Your task to perform on an android device: turn smart compose on in the gmail app Image 0: 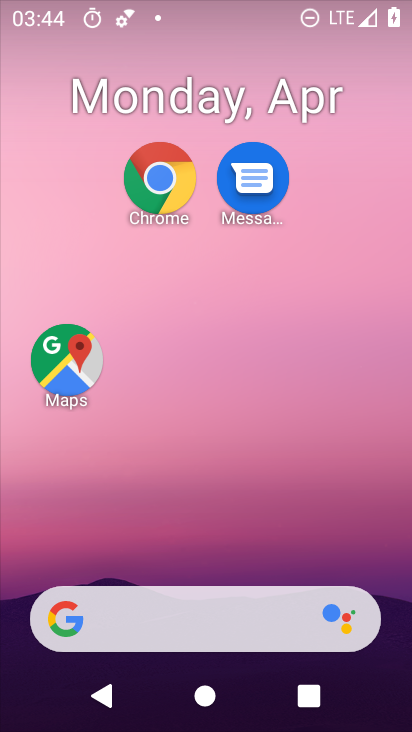
Step 0: drag from (299, 570) to (346, 46)
Your task to perform on an android device: turn smart compose on in the gmail app Image 1: 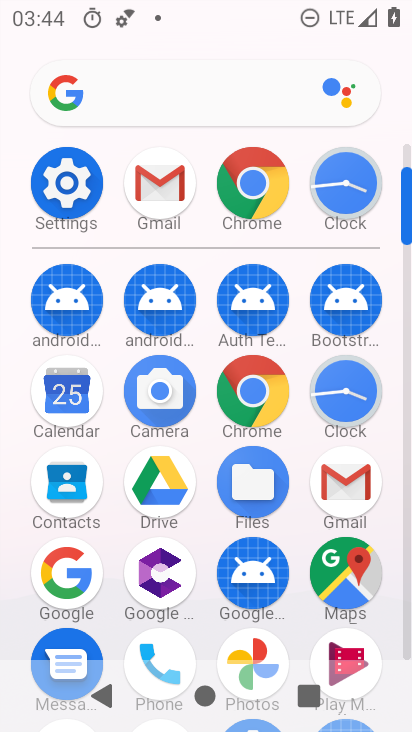
Step 1: click (343, 476)
Your task to perform on an android device: turn smart compose on in the gmail app Image 2: 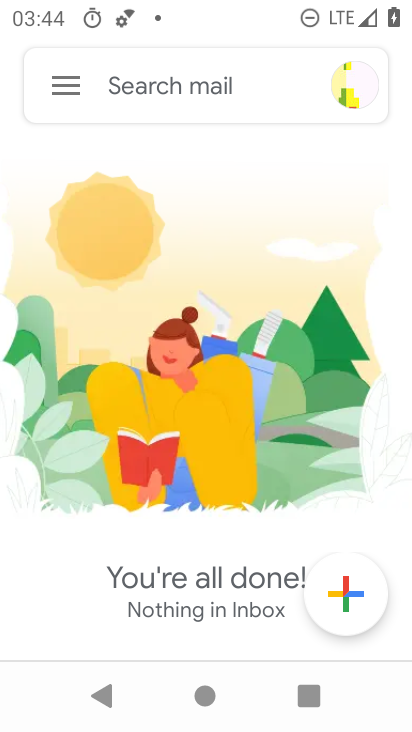
Step 2: click (55, 79)
Your task to perform on an android device: turn smart compose on in the gmail app Image 3: 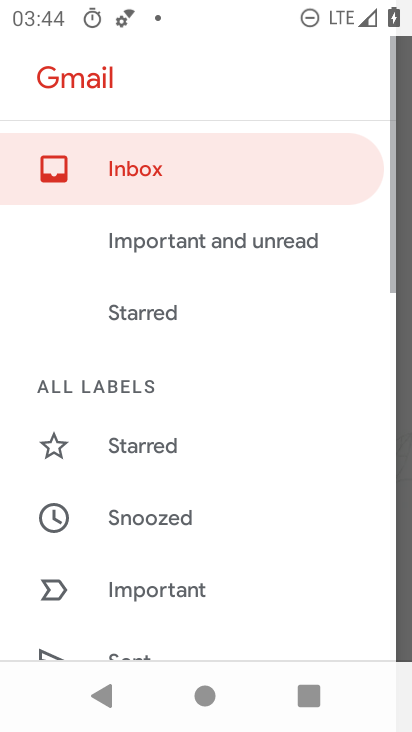
Step 3: drag from (279, 604) to (338, 163)
Your task to perform on an android device: turn smart compose on in the gmail app Image 4: 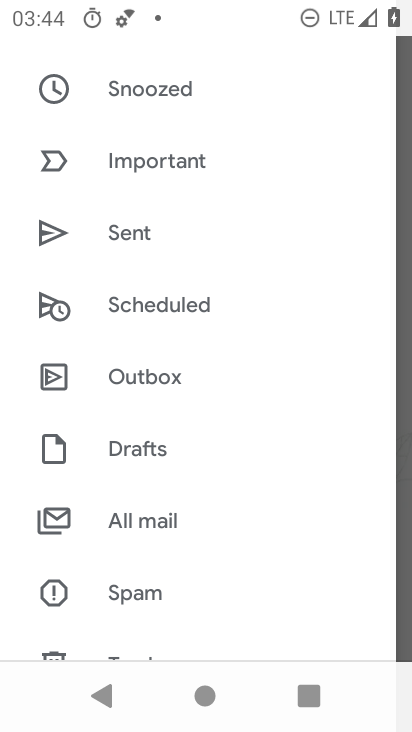
Step 4: drag from (252, 661) to (375, 145)
Your task to perform on an android device: turn smart compose on in the gmail app Image 5: 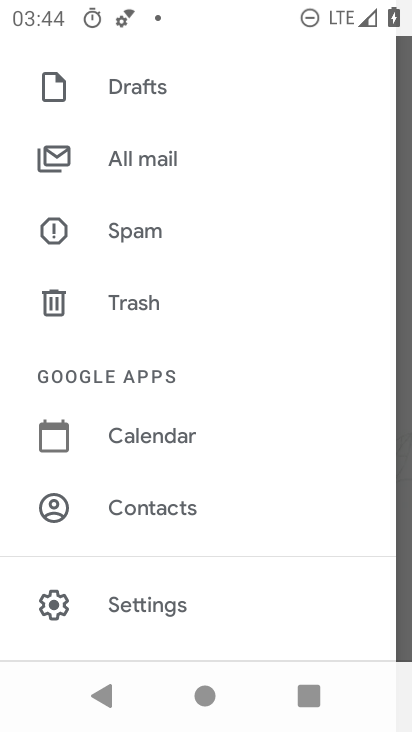
Step 5: click (135, 612)
Your task to perform on an android device: turn smart compose on in the gmail app Image 6: 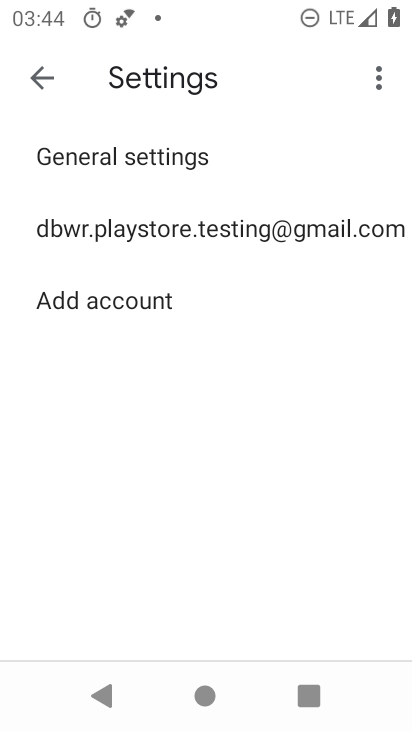
Step 6: click (225, 226)
Your task to perform on an android device: turn smart compose on in the gmail app Image 7: 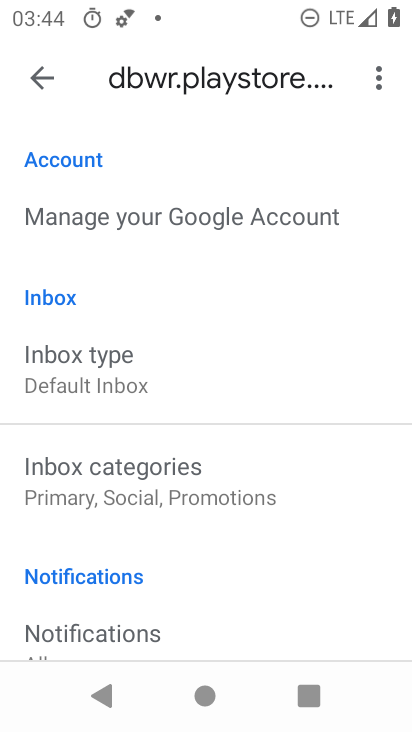
Step 7: drag from (247, 615) to (317, 181)
Your task to perform on an android device: turn smart compose on in the gmail app Image 8: 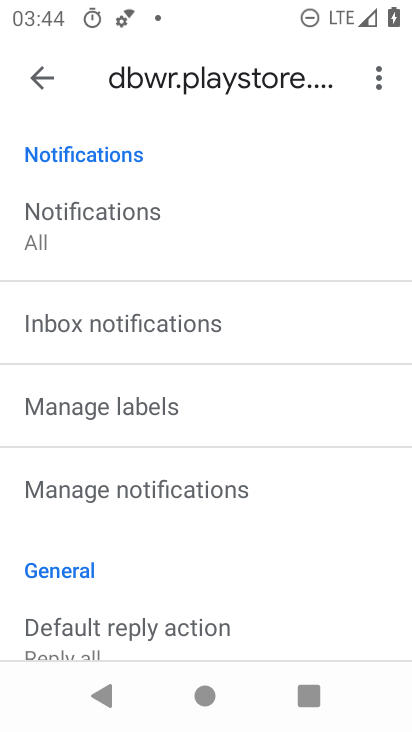
Step 8: drag from (281, 615) to (269, 105)
Your task to perform on an android device: turn smart compose on in the gmail app Image 9: 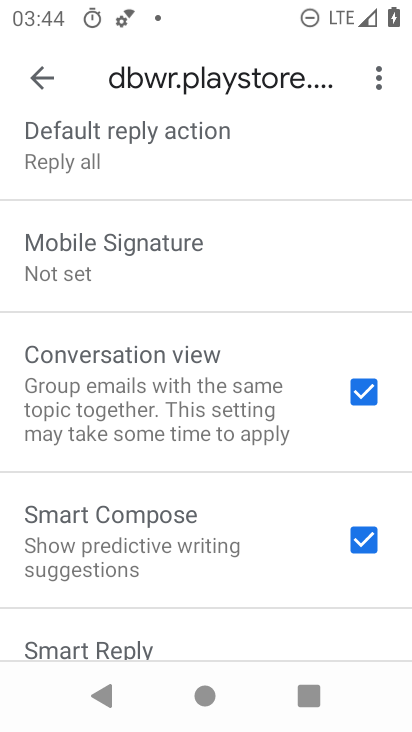
Step 9: drag from (220, 568) to (247, 278)
Your task to perform on an android device: turn smart compose on in the gmail app Image 10: 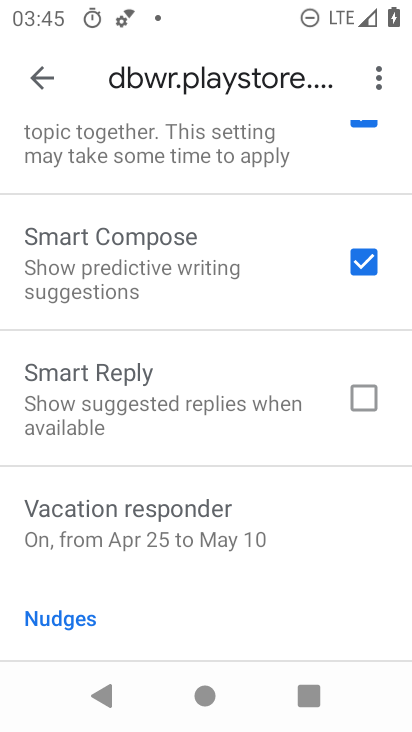
Step 10: click (365, 264)
Your task to perform on an android device: turn smart compose on in the gmail app Image 11: 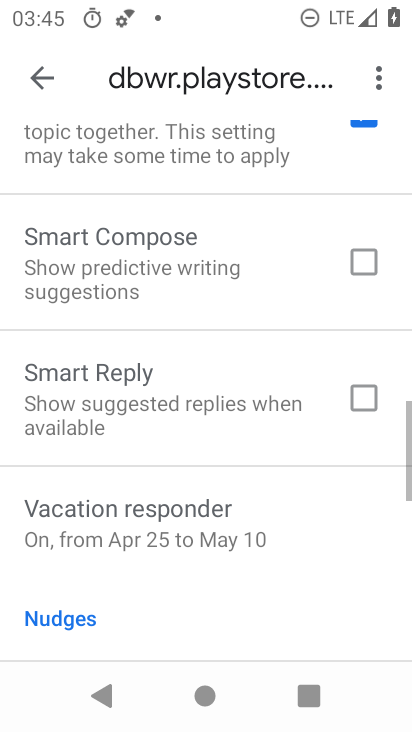
Step 11: click (365, 264)
Your task to perform on an android device: turn smart compose on in the gmail app Image 12: 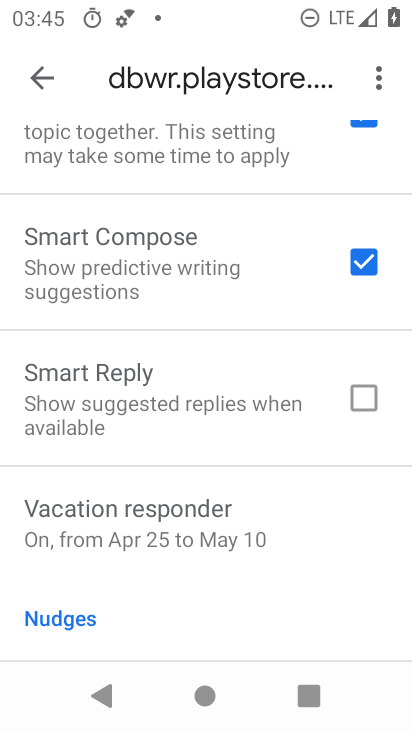
Step 12: task complete